Your task to perform on an android device: turn off wifi Image 0: 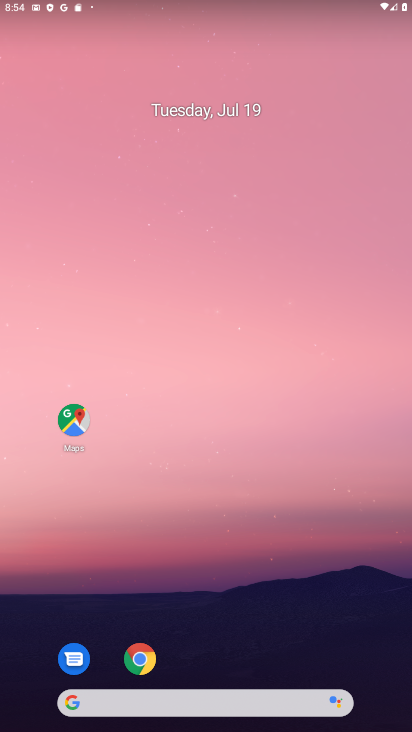
Step 0: drag from (264, 3) to (205, 496)
Your task to perform on an android device: turn off wifi Image 1: 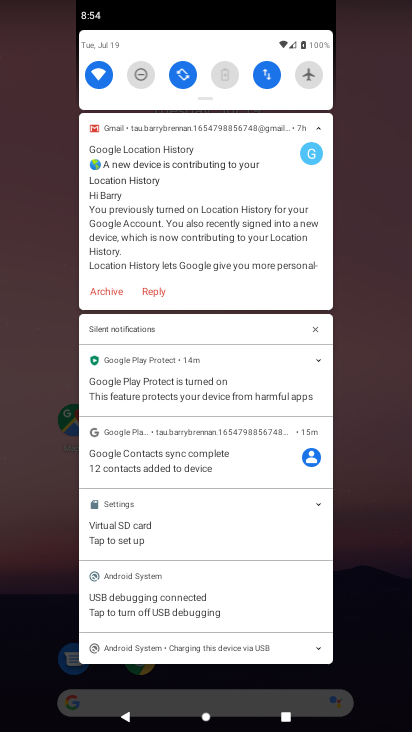
Step 1: click (100, 73)
Your task to perform on an android device: turn off wifi Image 2: 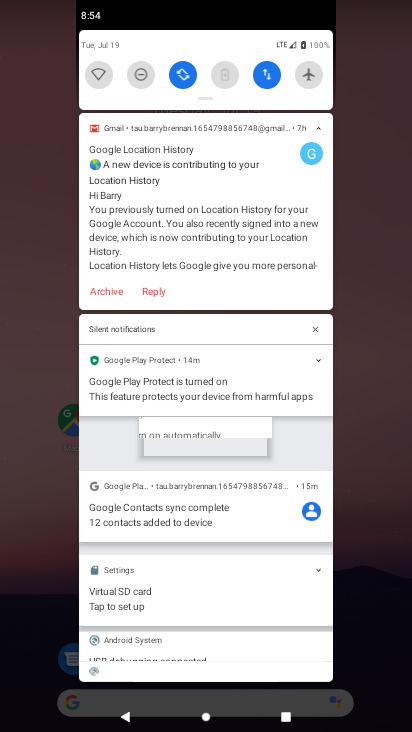
Step 2: task complete